Your task to perform on an android device: install app "Adobe Express: Graphic Design" Image 0: 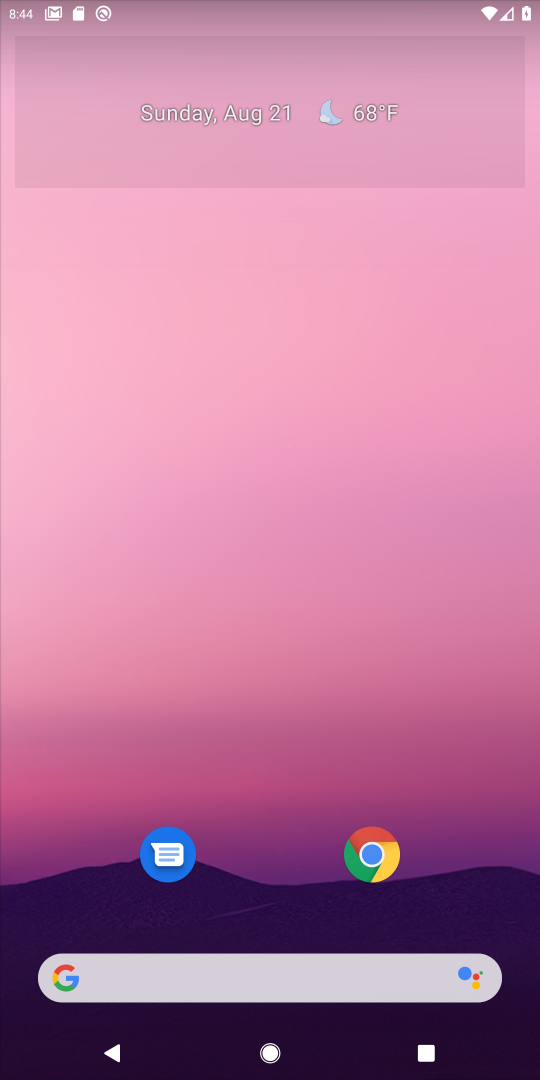
Step 0: drag from (247, 902) to (426, 89)
Your task to perform on an android device: install app "Adobe Express: Graphic Design" Image 1: 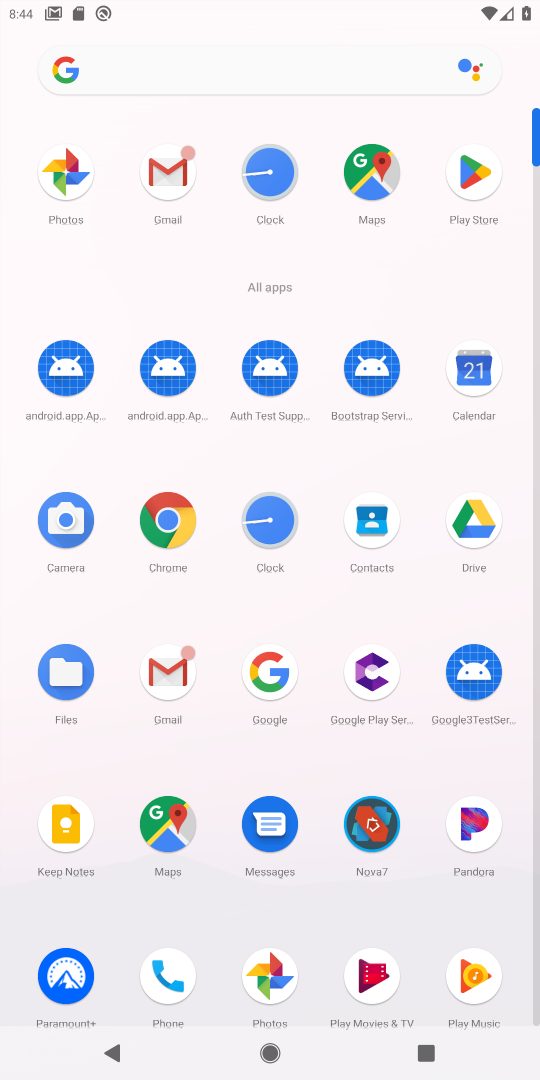
Step 1: click (472, 204)
Your task to perform on an android device: install app "Adobe Express: Graphic Design" Image 2: 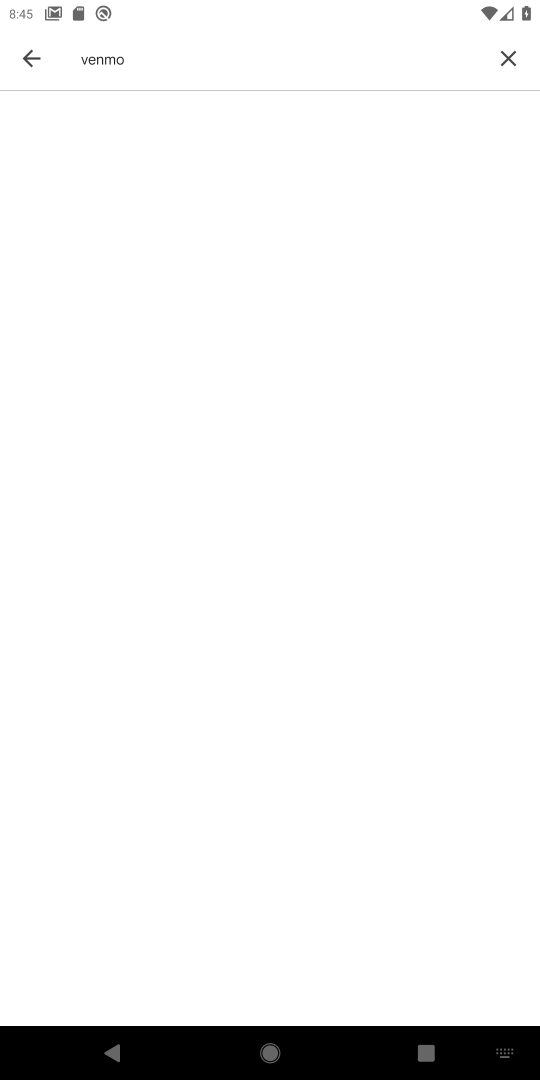
Step 2: click (502, 75)
Your task to perform on an android device: install app "Adobe Express: Graphic Design" Image 3: 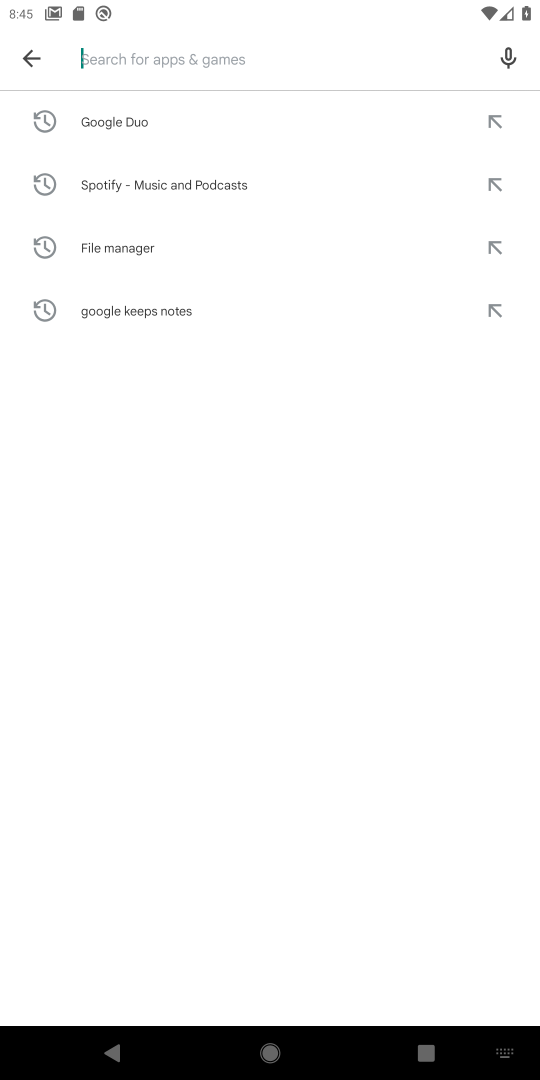
Step 3: click (496, 58)
Your task to perform on an android device: install app "Adobe Express: Graphic Design" Image 4: 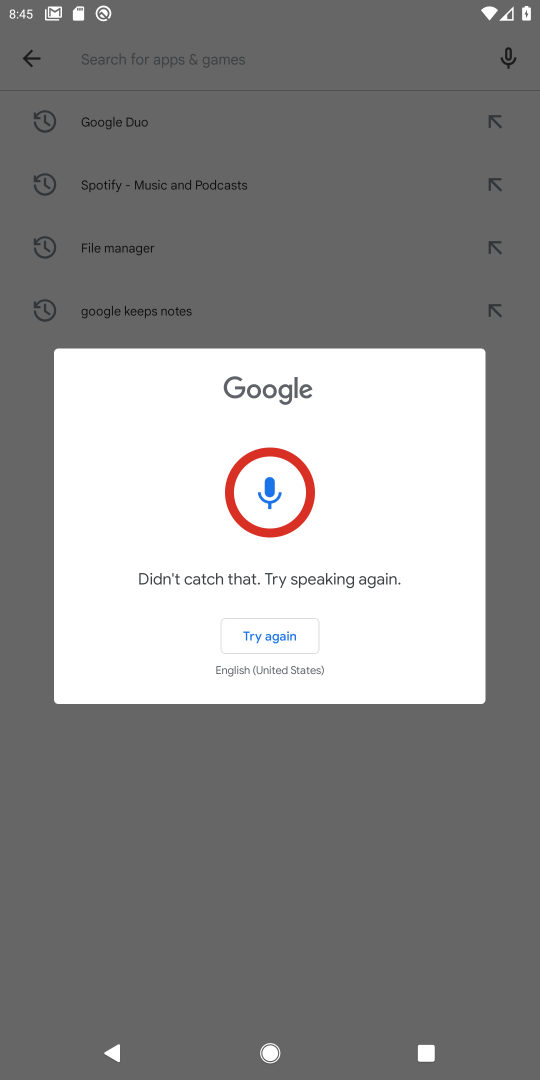
Step 4: click (360, 261)
Your task to perform on an android device: install app "Adobe Express: Graphic Design" Image 5: 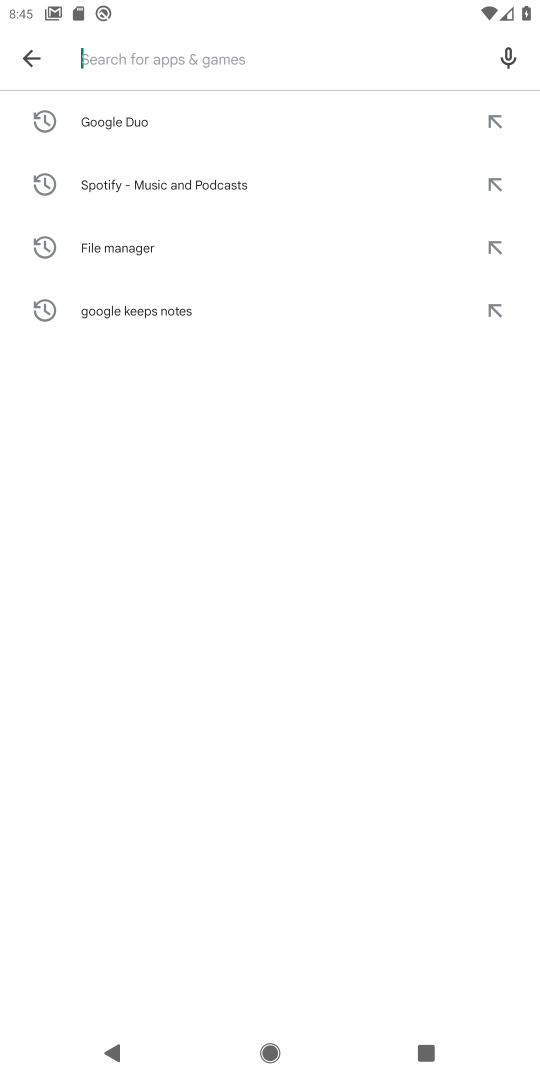
Step 5: type "adobe"
Your task to perform on an android device: install app "Adobe Express: Graphic Design" Image 6: 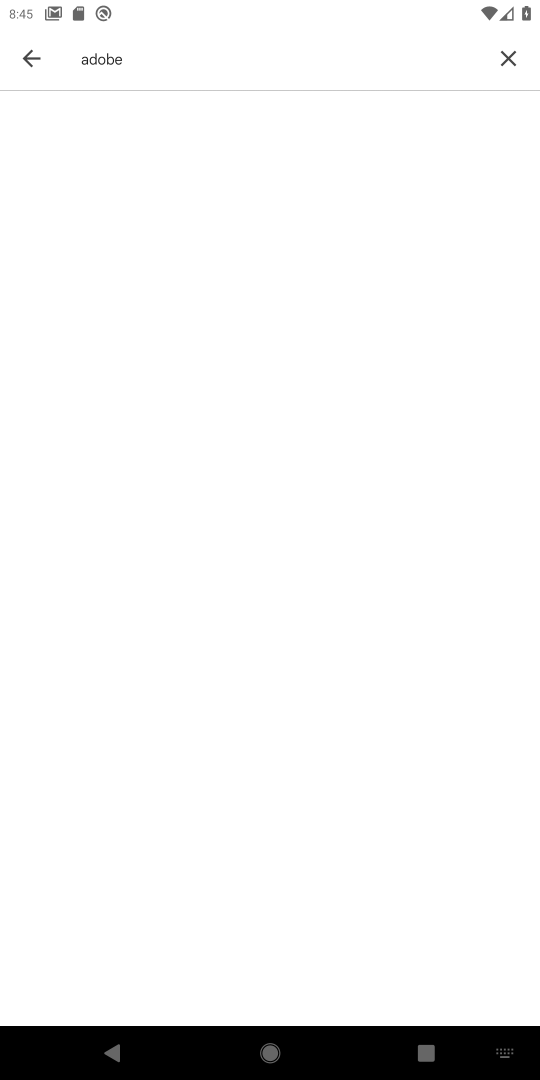
Step 6: click (508, 61)
Your task to perform on an android device: install app "Adobe Express: Graphic Design" Image 7: 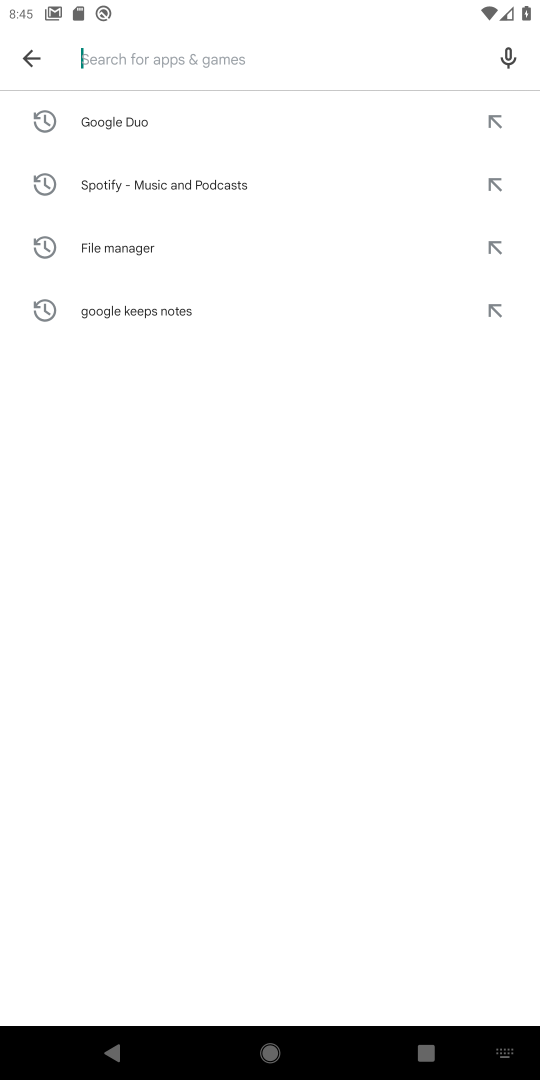
Step 7: type "adobe"
Your task to perform on an android device: install app "Adobe Express: Graphic Design" Image 8: 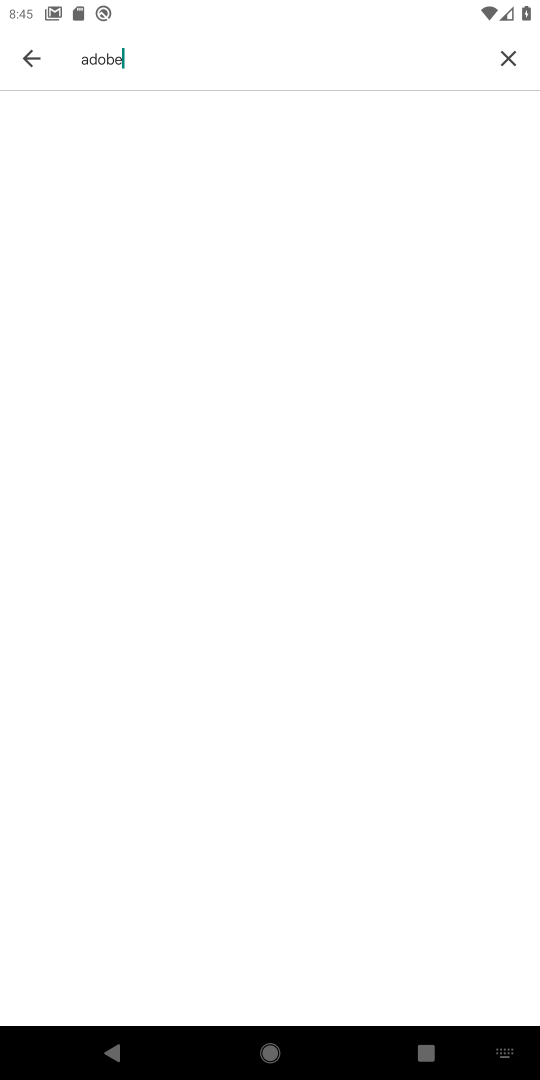
Step 8: task complete